Your task to perform on an android device: What's on my calendar today? Image 0: 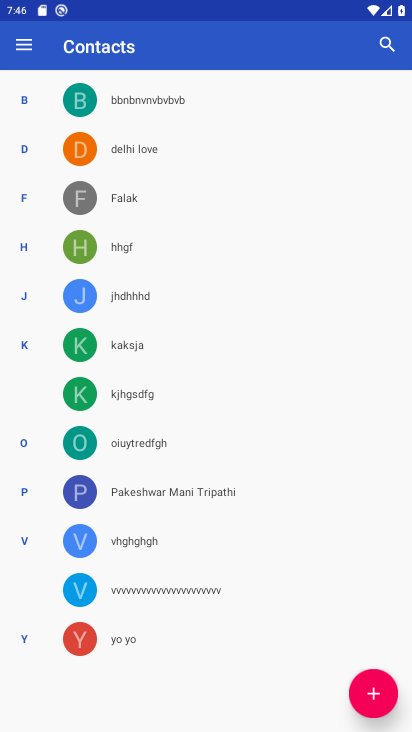
Step 0: press home button
Your task to perform on an android device: What's on my calendar today? Image 1: 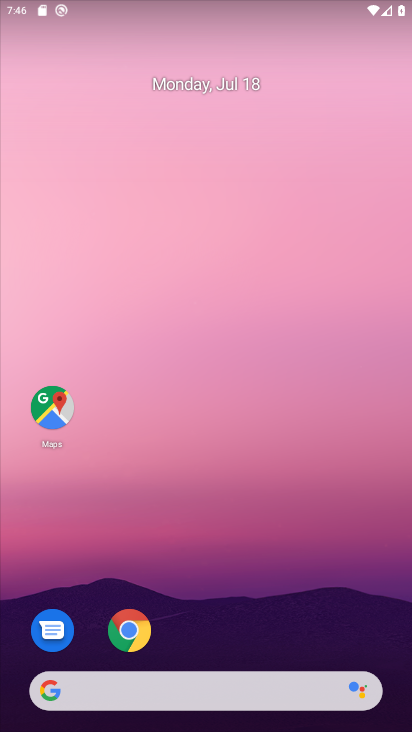
Step 1: drag from (251, 607) to (243, 268)
Your task to perform on an android device: What's on my calendar today? Image 2: 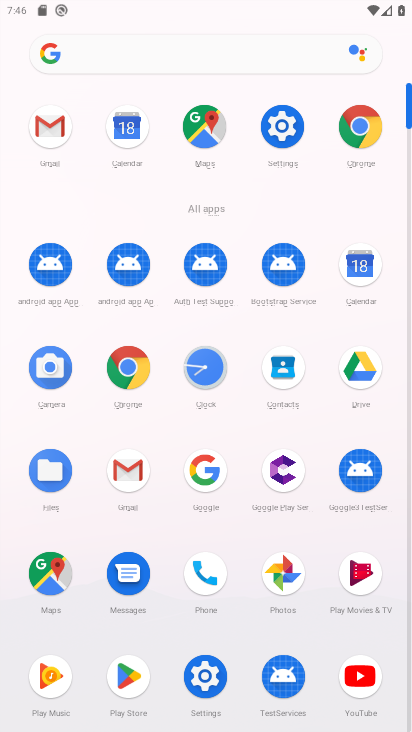
Step 2: click (352, 257)
Your task to perform on an android device: What's on my calendar today? Image 3: 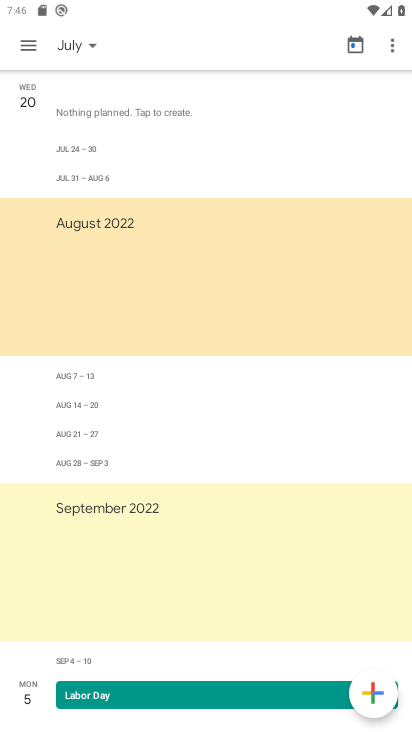
Step 3: click (23, 35)
Your task to perform on an android device: What's on my calendar today? Image 4: 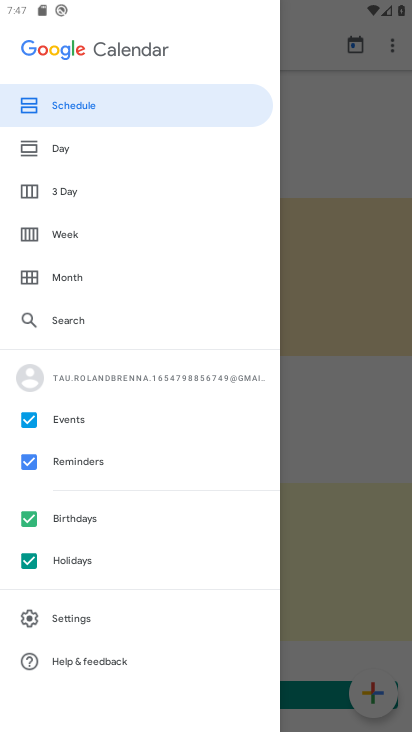
Step 4: click (93, 272)
Your task to perform on an android device: What's on my calendar today? Image 5: 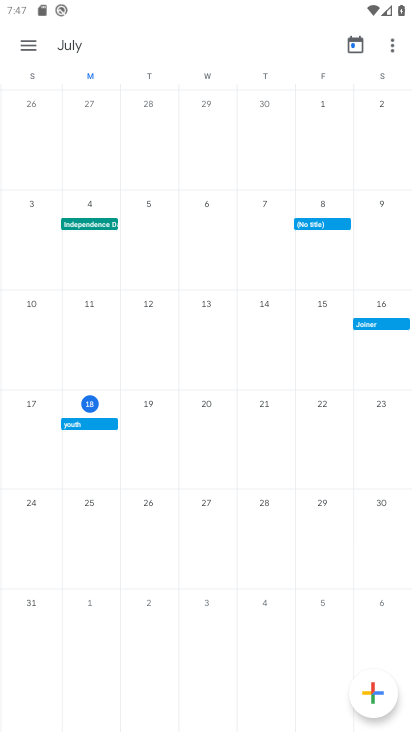
Step 5: click (147, 403)
Your task to perform on an android device: What's on my calendar today? Image 6: 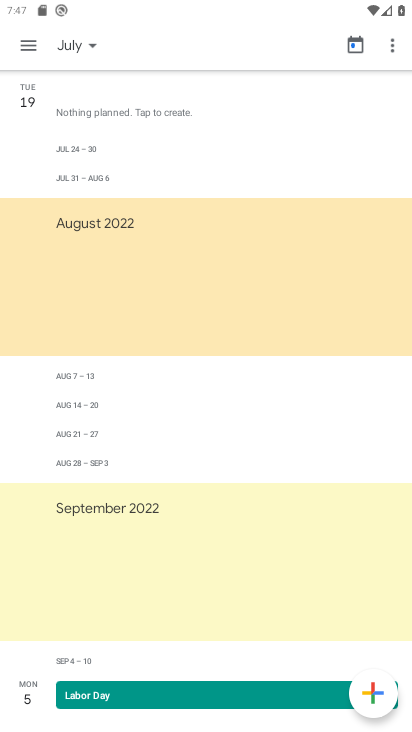
Step 6: task complete